Your task to perform on an android device: check the backup settings in the google photos Image 0: 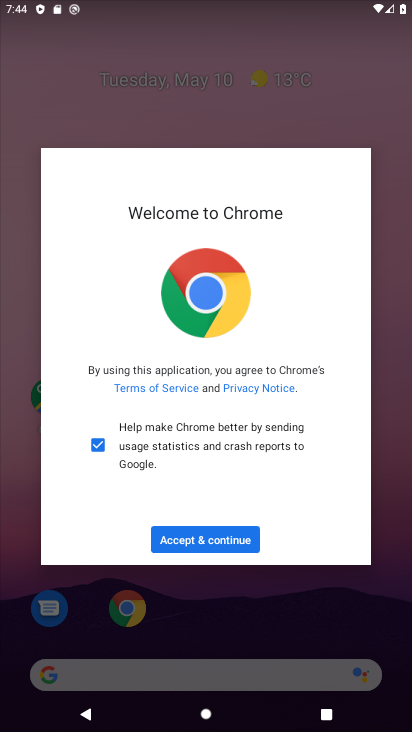
Step 0: click (193, 536)
Your task to perform on an android device: check the backup settings in the google photos Image 1: 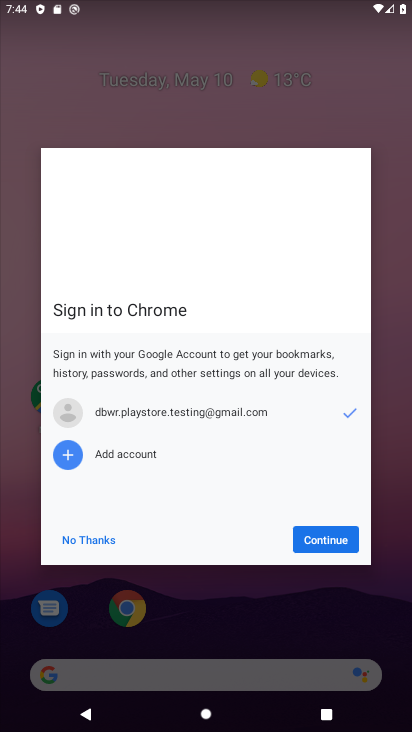
Step 1: click (340, 539)
Your task to perform on an android device: check the backup settings in the google photos Image 2: 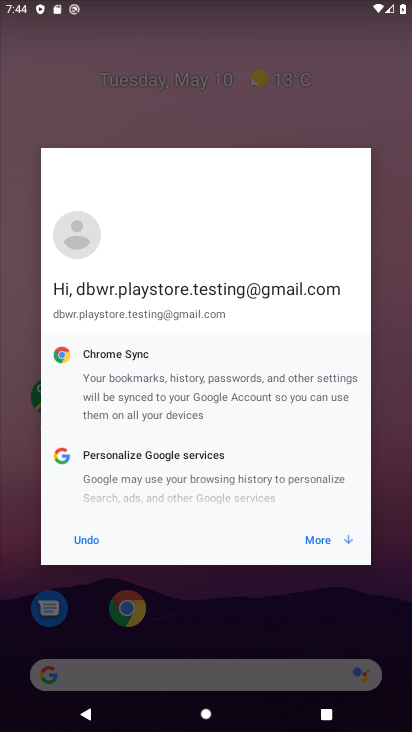
Step 2: click (330, 532)
Your task to perform on an android device: check the backup settings in the google photos Image 3: 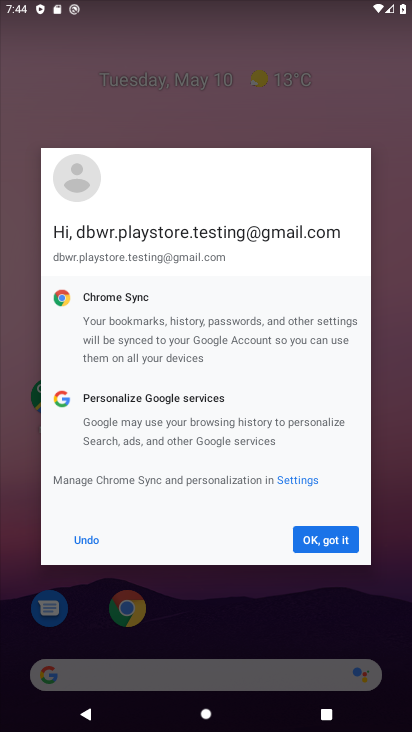
Step 3: click (330, 532)
Your task to perform on an android device: check the backup settings in the google photos Image 4: 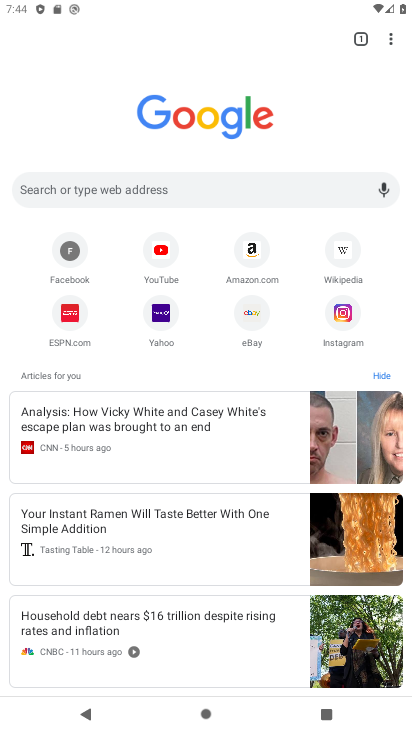
Step 4: press home button
Your task to perform on an android device: check the backup settings in the google photos Image 5: 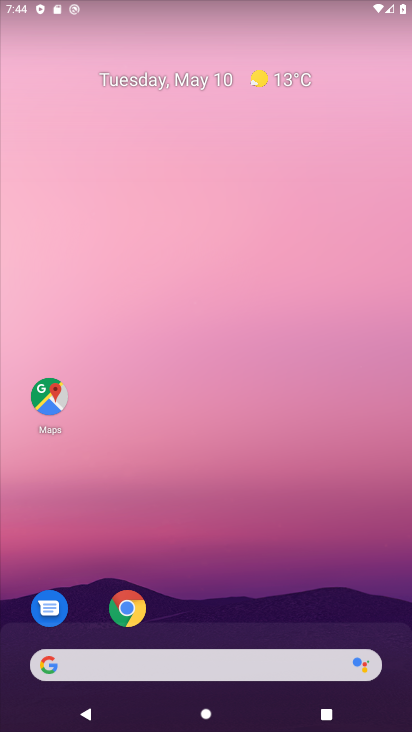
Step 5: drag from (243, 592) to (190, 67)
Your task to perform on an android device: check the backup settings in the google photos Image 6: 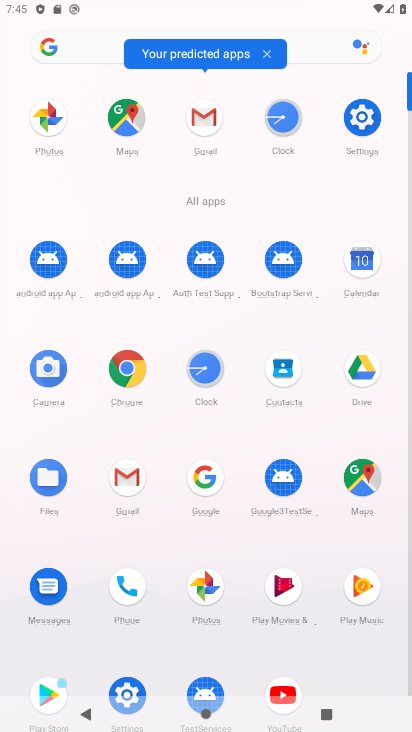
Step 6: click (205, 585)
Your task to perform on an android device: check the backup settings in the google photos Image 7: 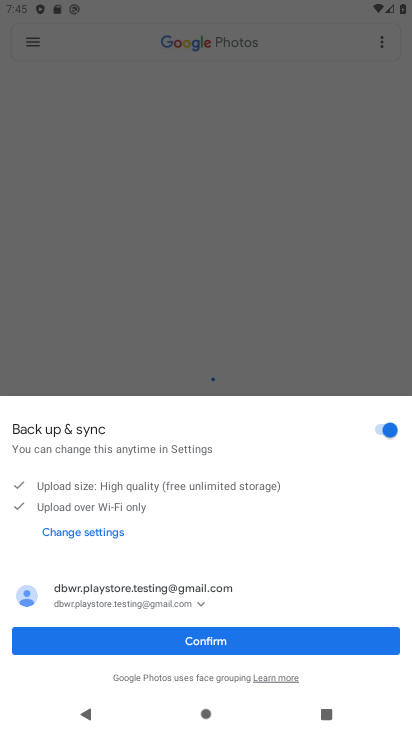
Step 7: click (225, 638)
Your task to perform on an android device: check the backup settings in the google photos Image 8: 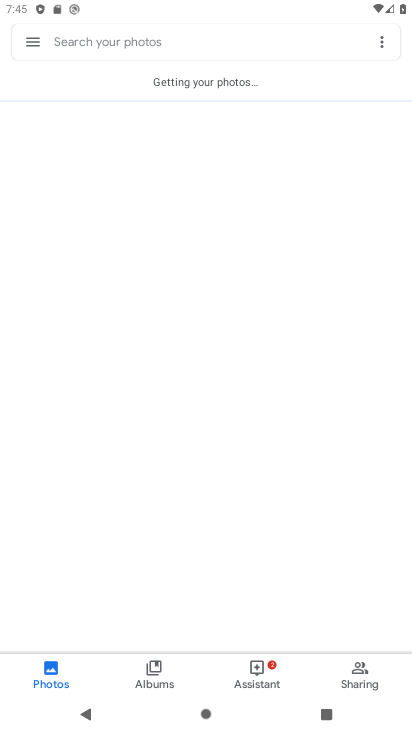
Step 8: click (31, 43)
Your task to perform on an android device: check the backup settings in the google photos Image 9: 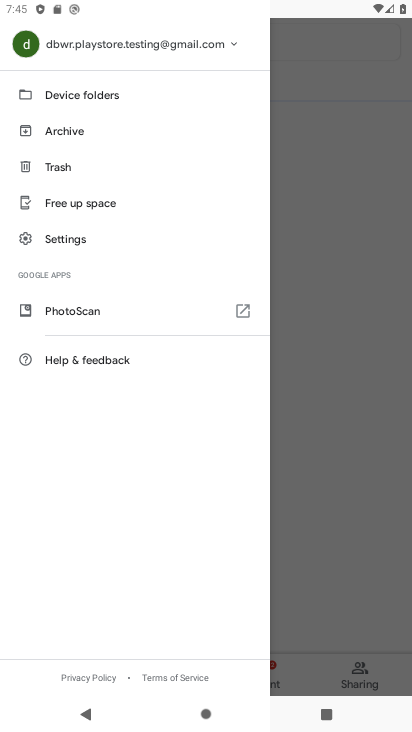
Step 9: click (66, 246)
Your task to perform on an android device: check the backup settings in the google photos Image 10: 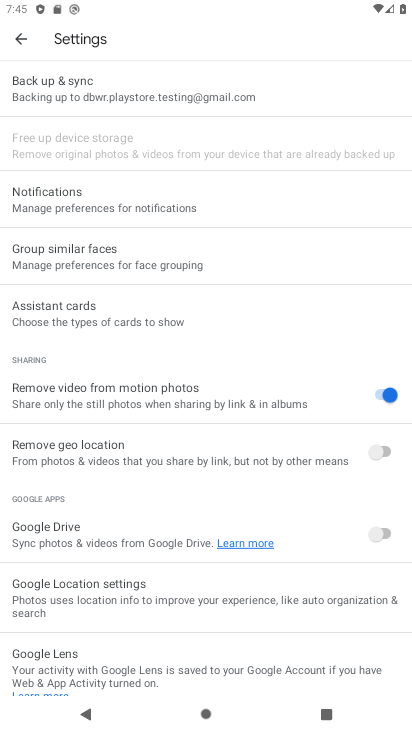
Step 10: click (123, 91)
Your task to perform on an android device: check the backup settings in the google photos Image 11: 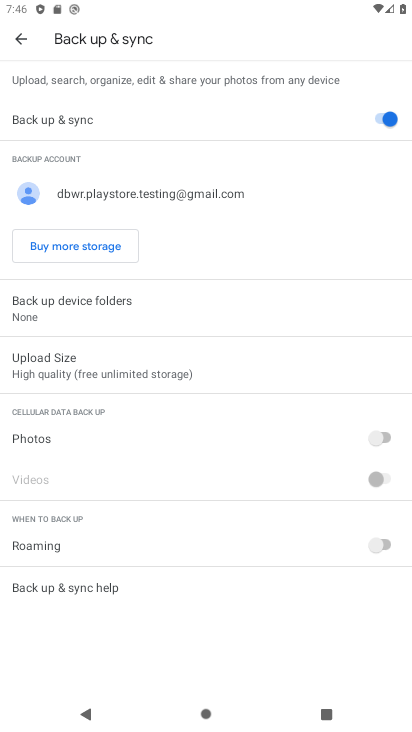
Step 11: task complete